Your task to perform on an android device: Install the Lyft app Image 0: 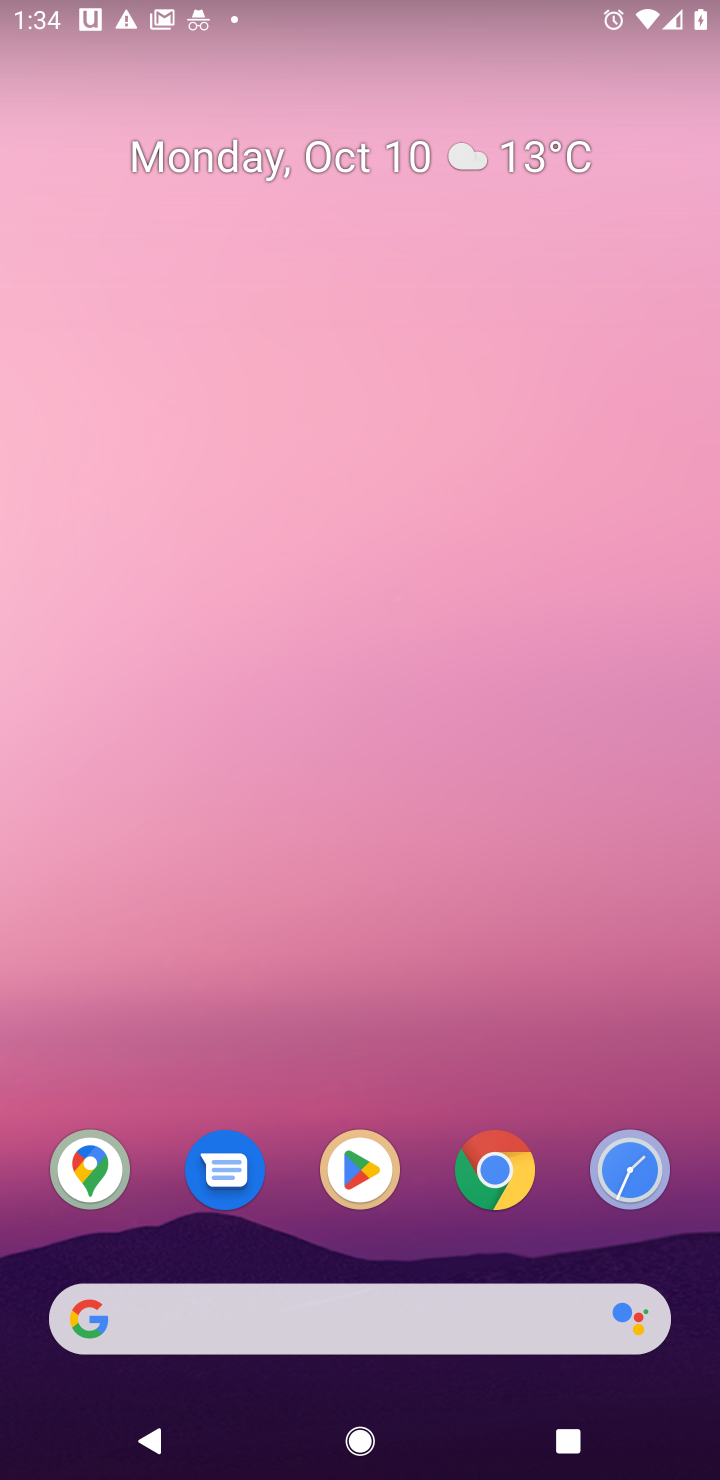
Step 0: click (361, 1166)
Your task to perform on an android device: Install the Lyft app Image 1: 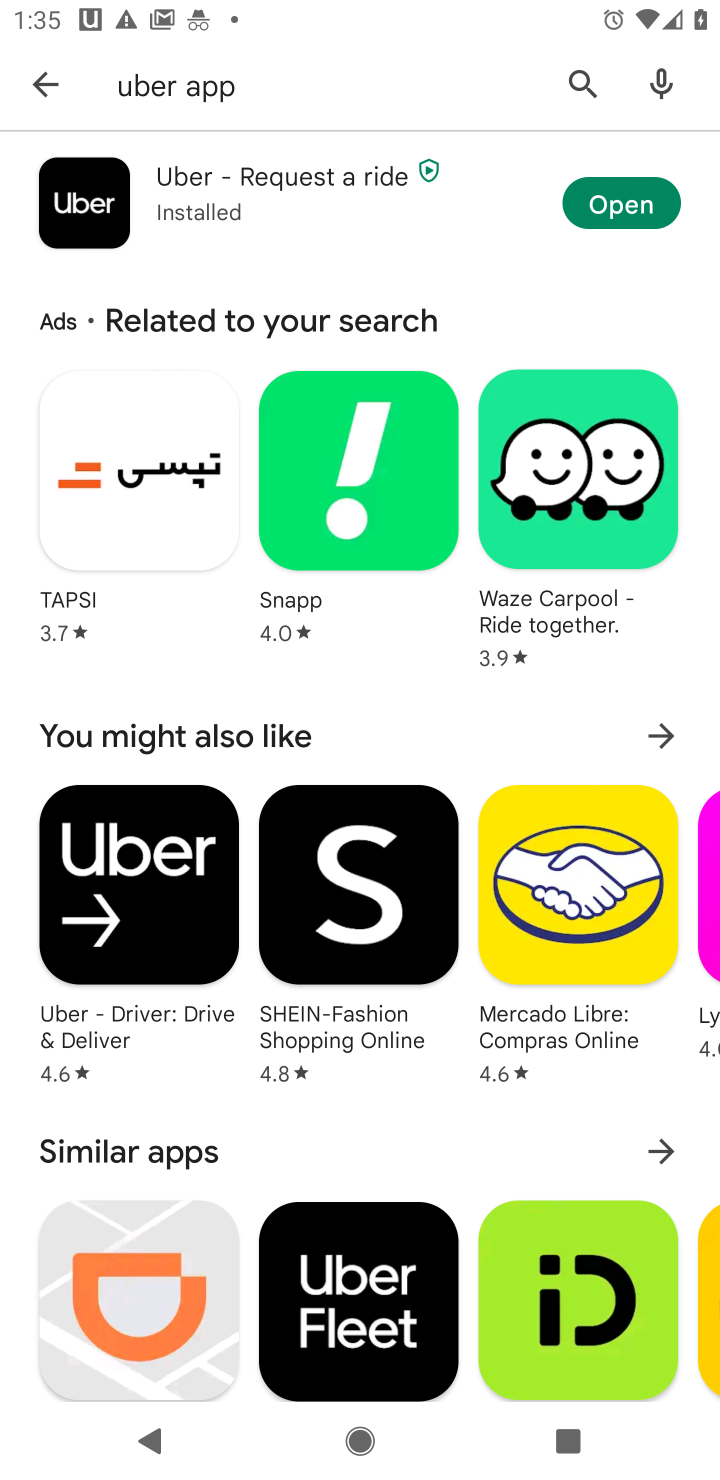
Step 1: click (586, 76)
Your task to perform on an android device: Install the Lyft app Image 2: 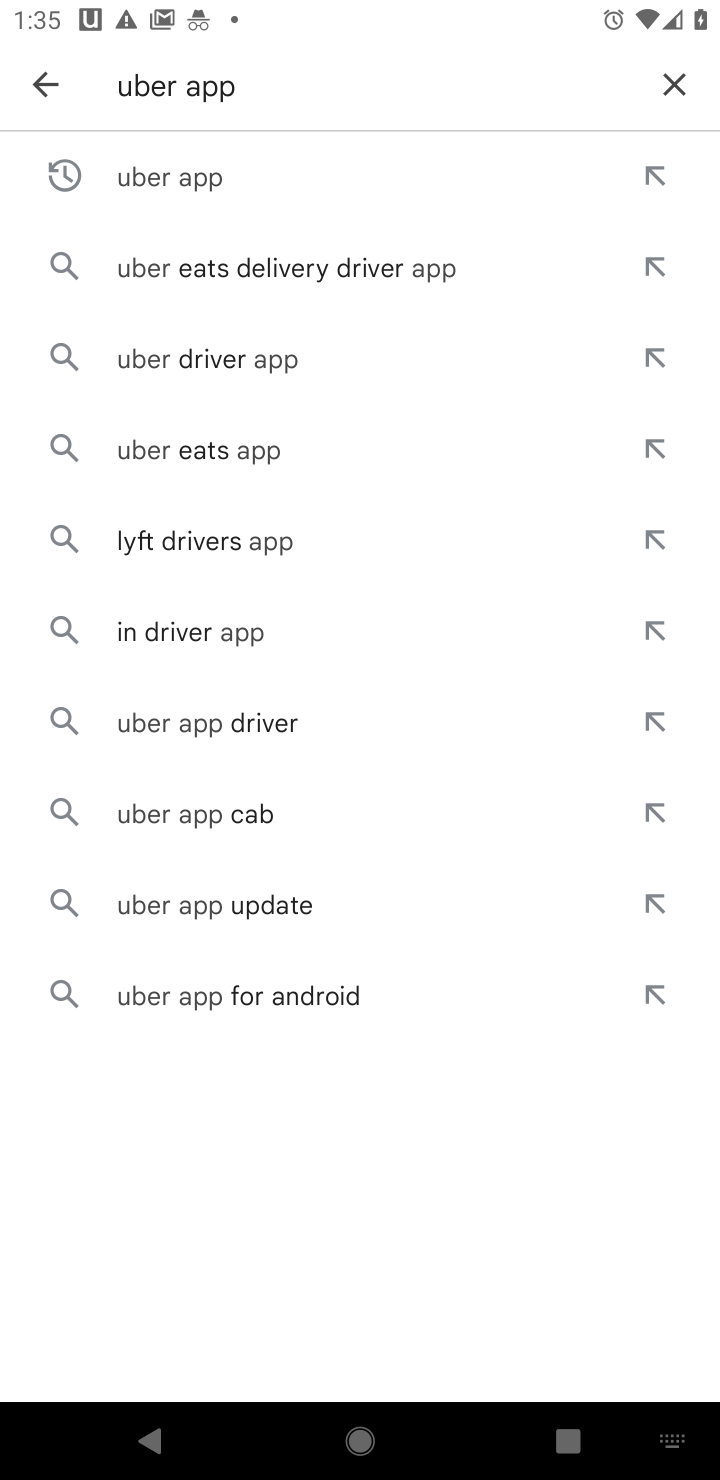
Step 2: type "lyft"
Your task to perform on an android device: Install the Lyft app Image 3: 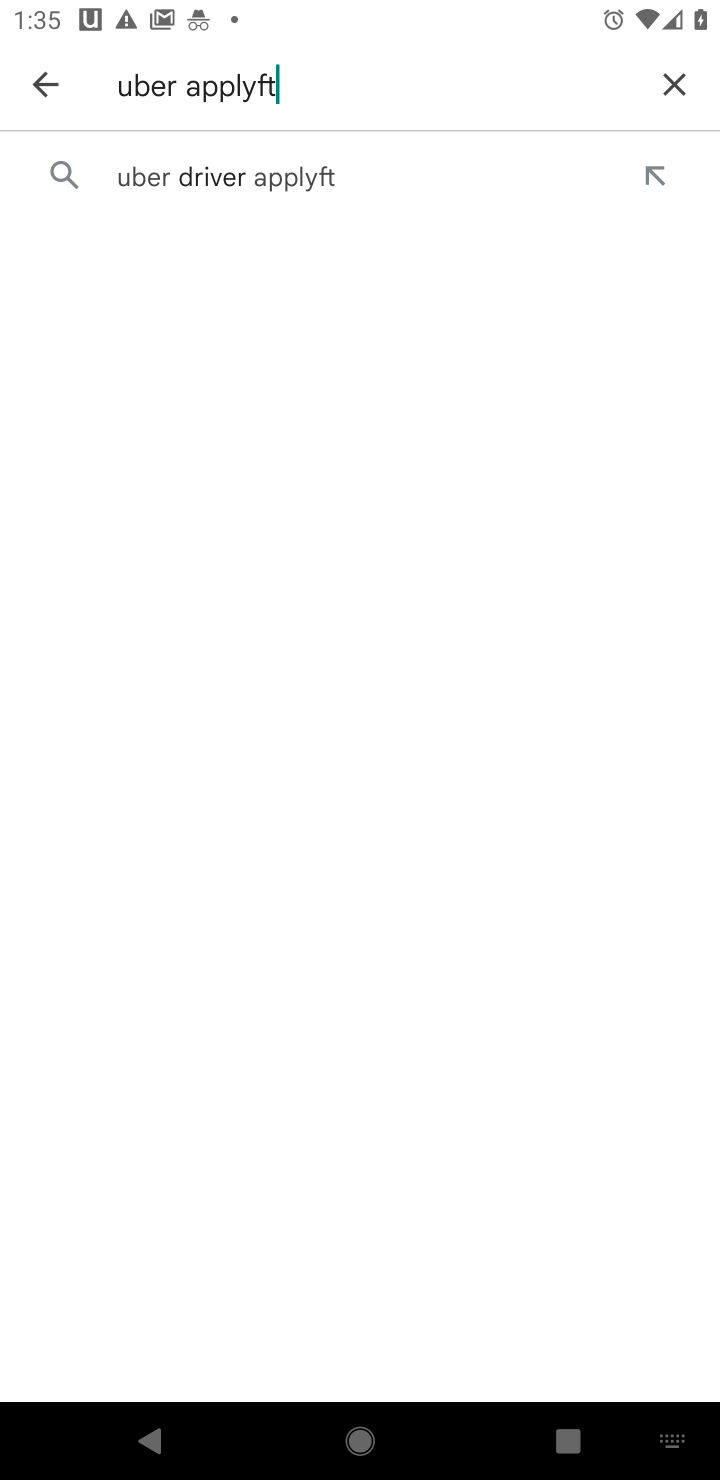
Step 3: click (672, 82)
Your task to perform on an android device: Install the Lyft app Image 4: 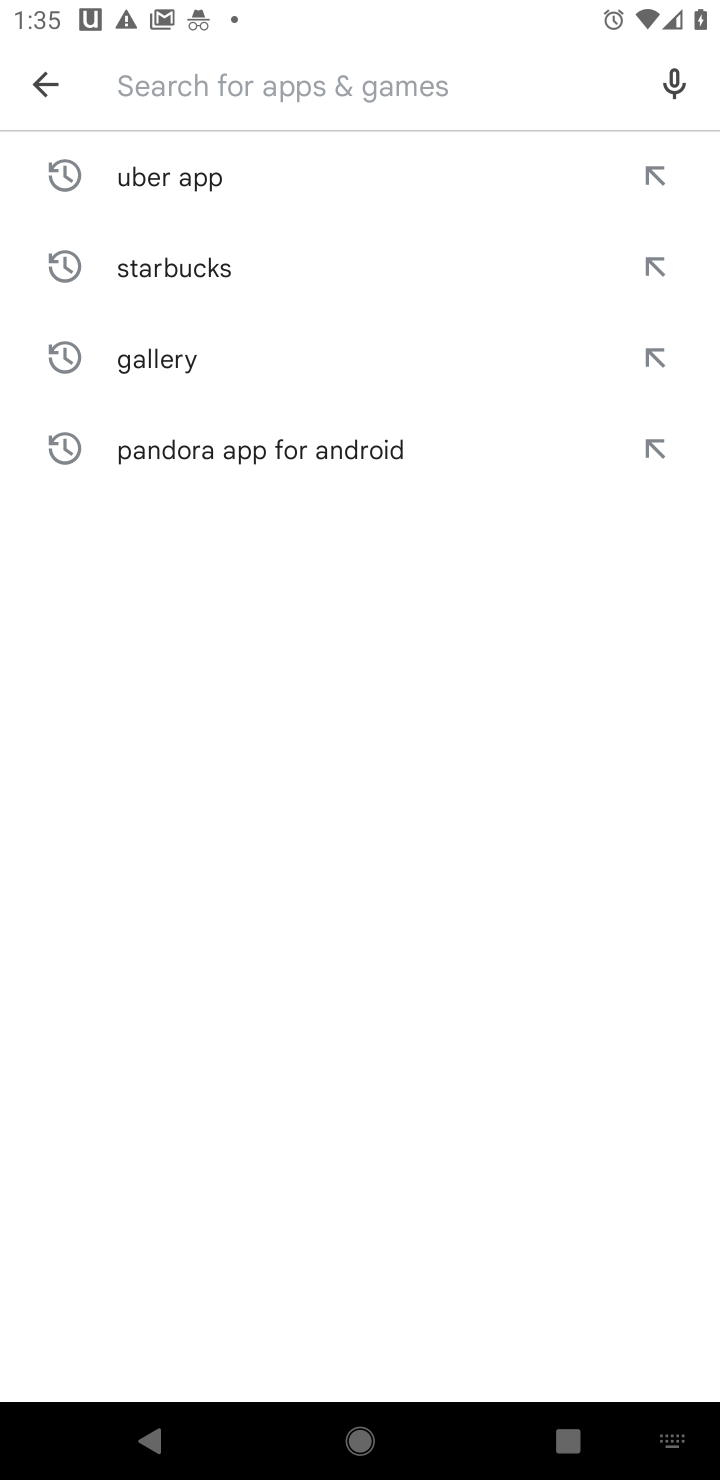
Step 4: type "lyft app"
Your task to perform on an android device: Install the Lyft app Image 5: 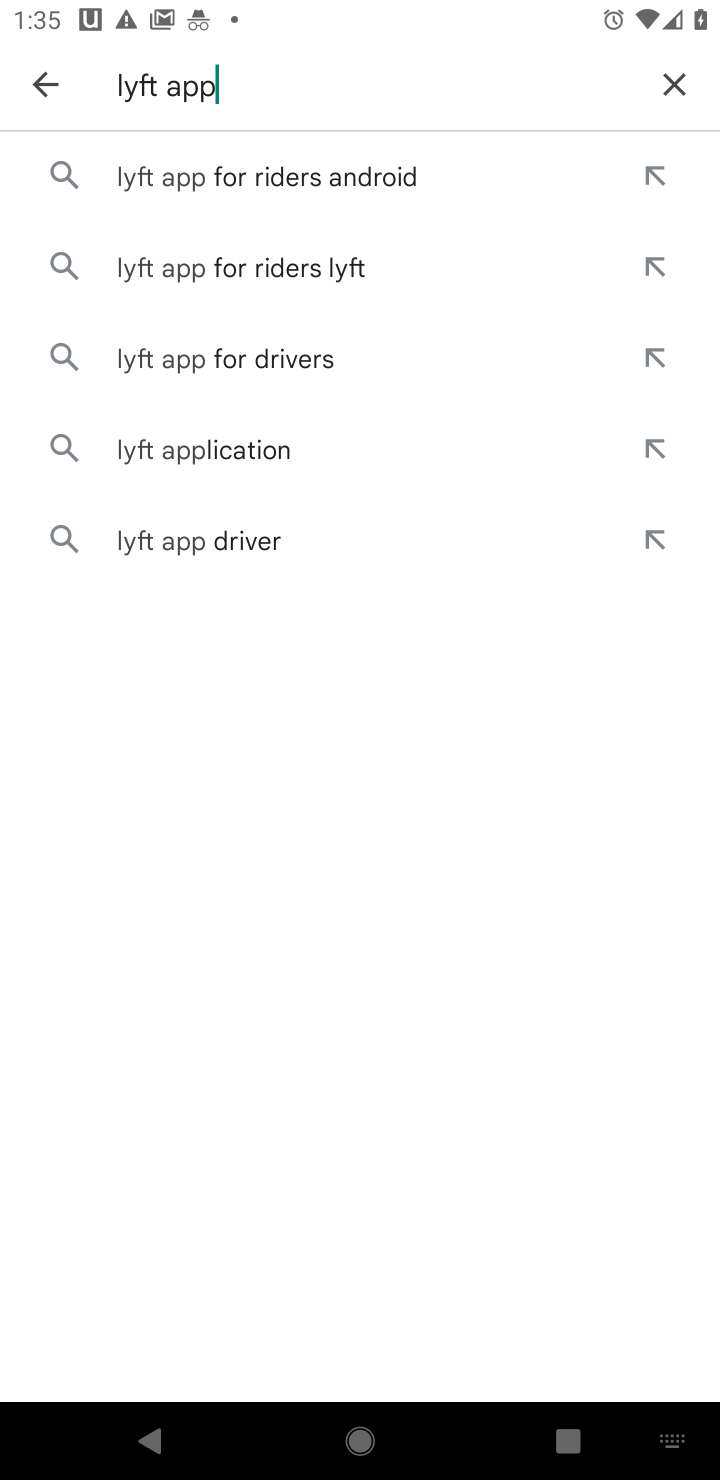
Step 5: click (217, 463)
Your task to perform on an android device: Install the Lyft app Image 6: 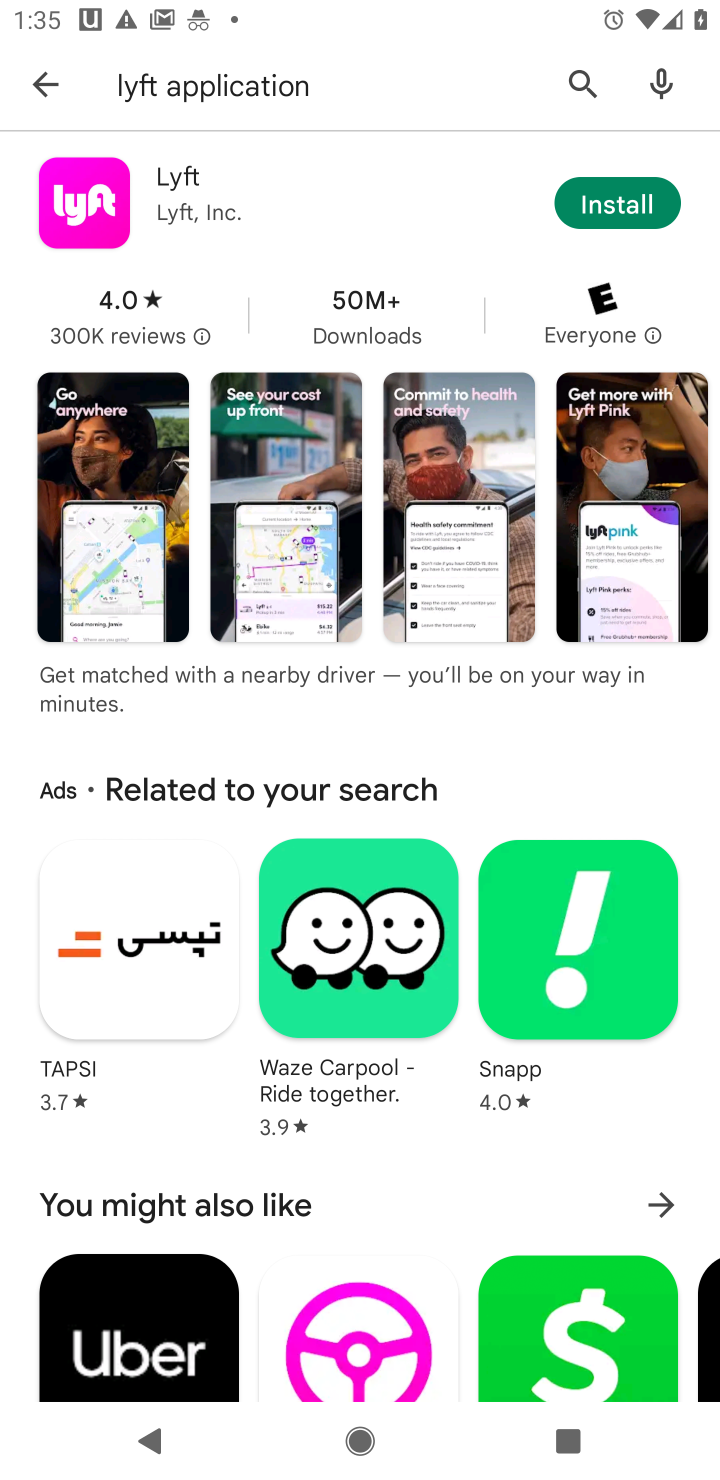
Step 6: click (619, 218)
Your task to perform on an android device: Install the Lyft app Image 7: 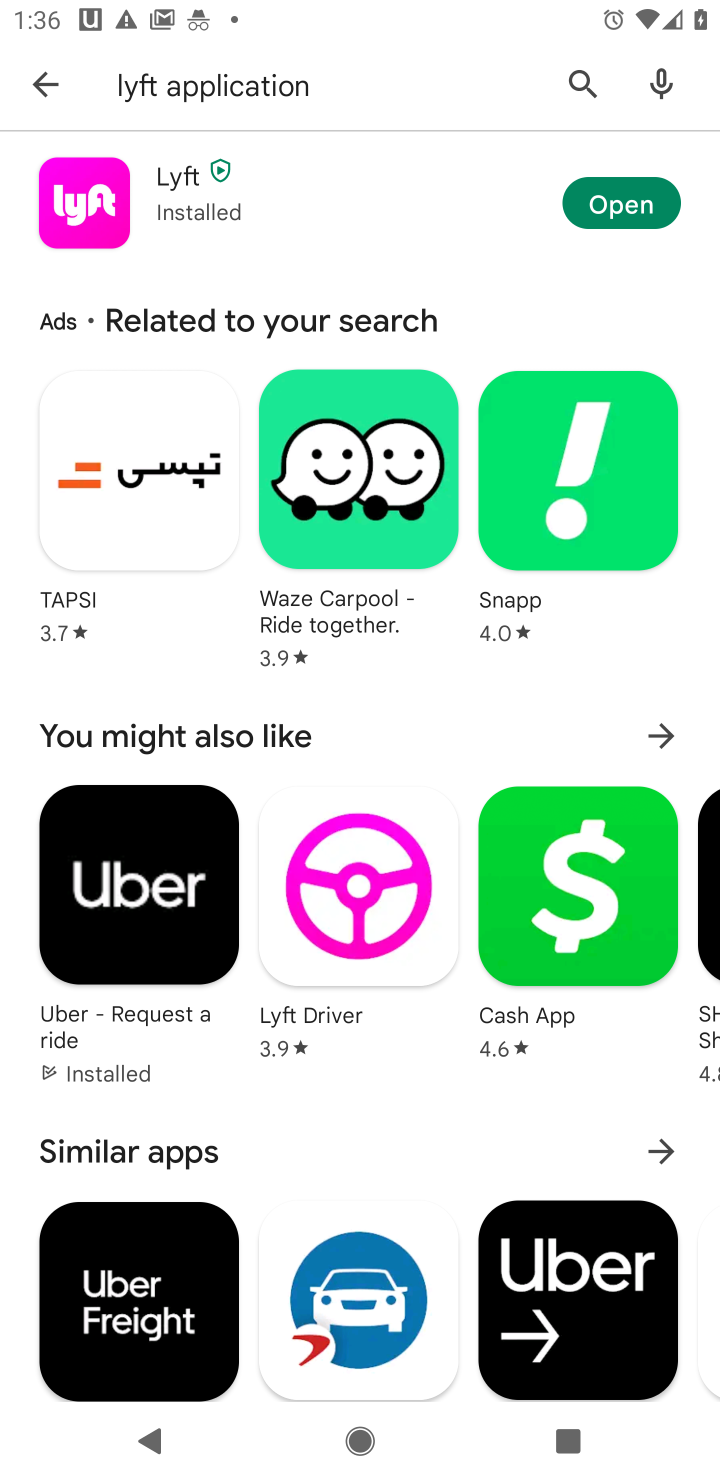
Step 7: click (624, 211)
Your task to perform on an android device: Install the Lyft app Image 8: 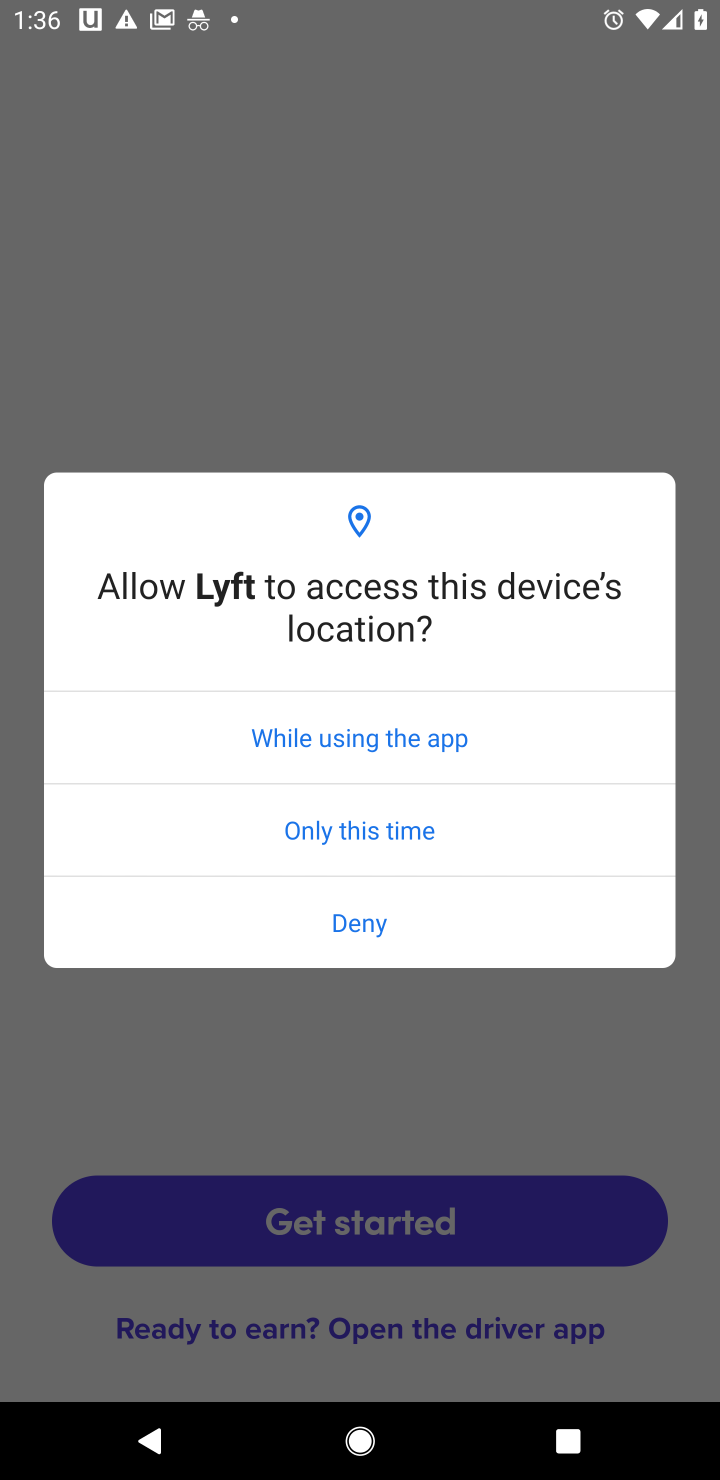
Step 8: click (524, 738)
Your task to perform on an android device: Install the Lyft app Image 9: 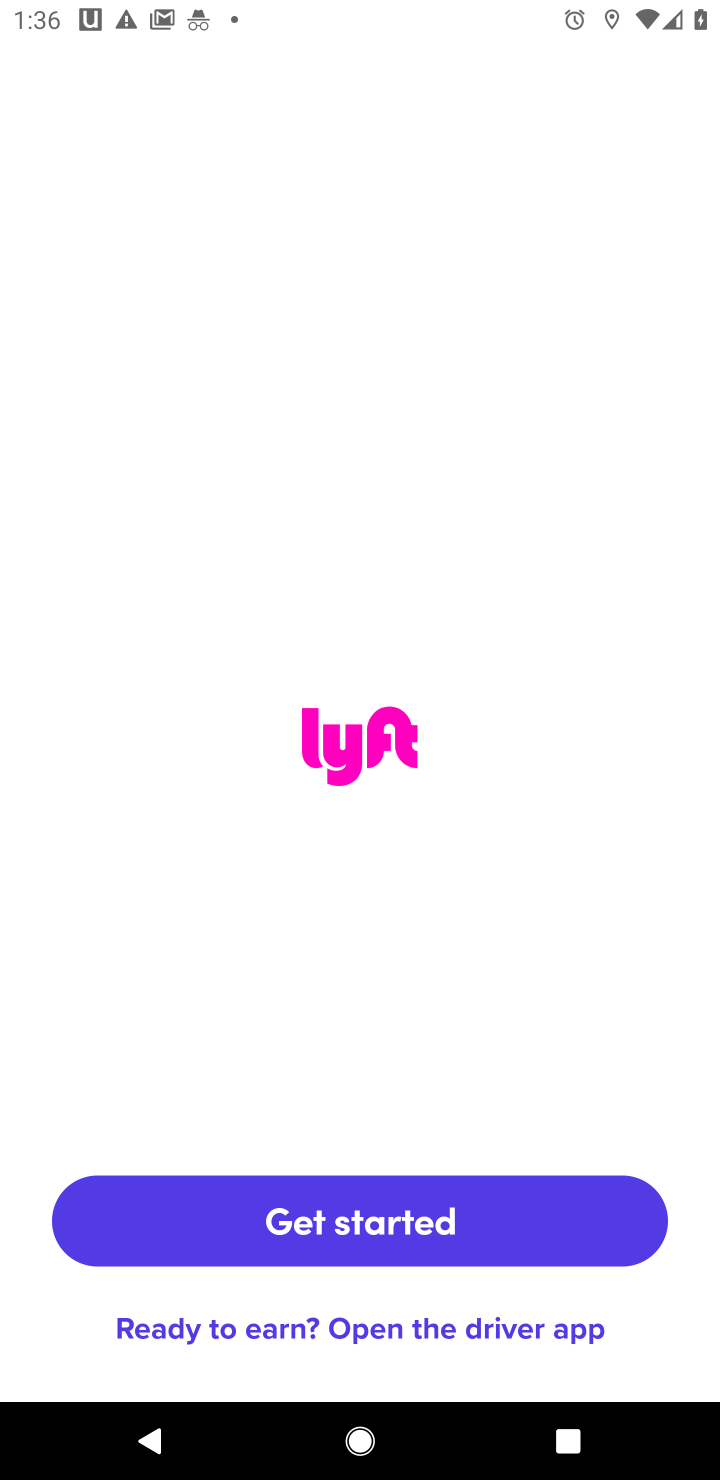
Step 9: task complete